Your task to perform on an android device: snooze an email in the gmail app Image 0: 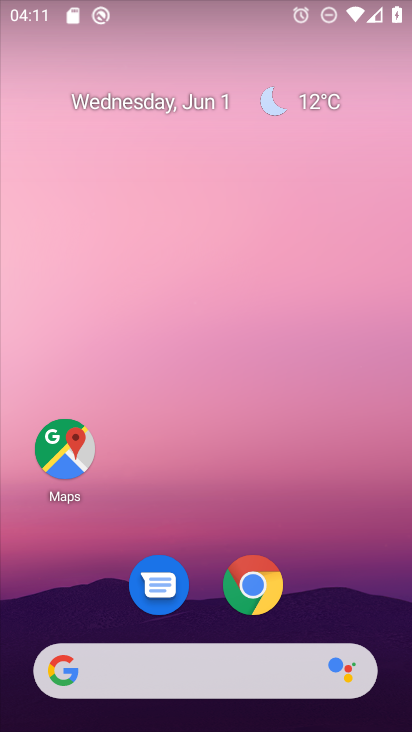
Step 0: click (247, 27)
Your task to perform on an android device: snooze an email in the gmail app Image 1: 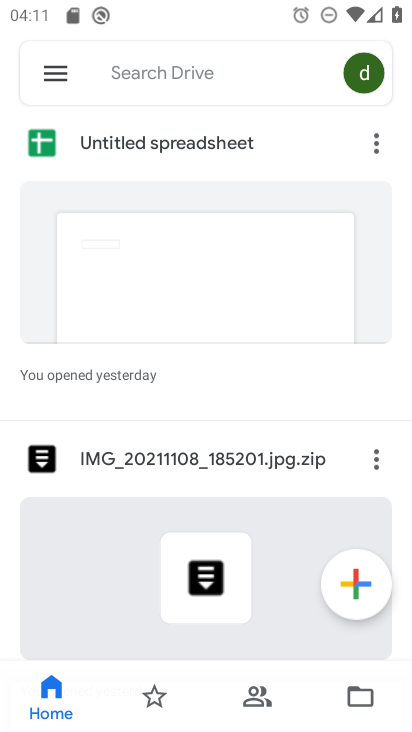
Step 1: press home button
Your task to perform on an android device: snooze an email in the gmail app Image 2: 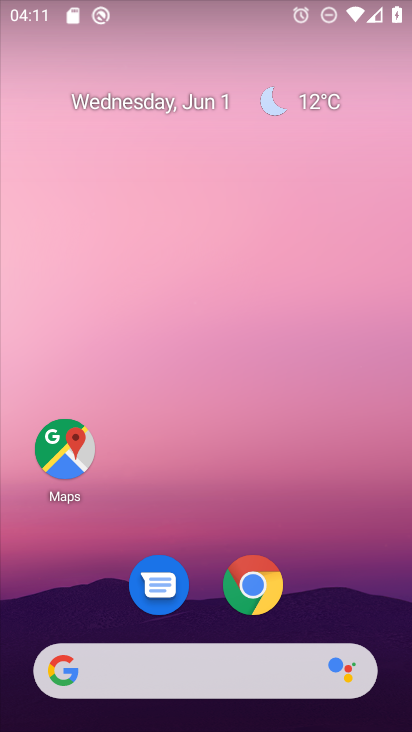
Step 2: drag from (181, 516) to (175, 5)
Your task to perform on an android device: snooze an email in the gmail app Image 3: 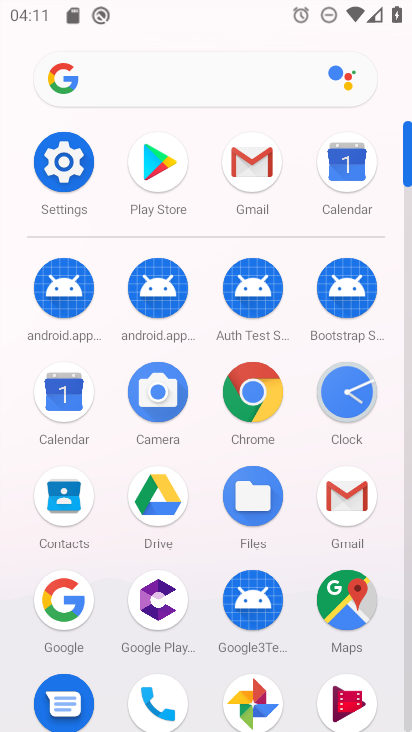
Step 3: click (247, 162)
Your task to perform on an android device: snooze an email in the gmail app Image 4: 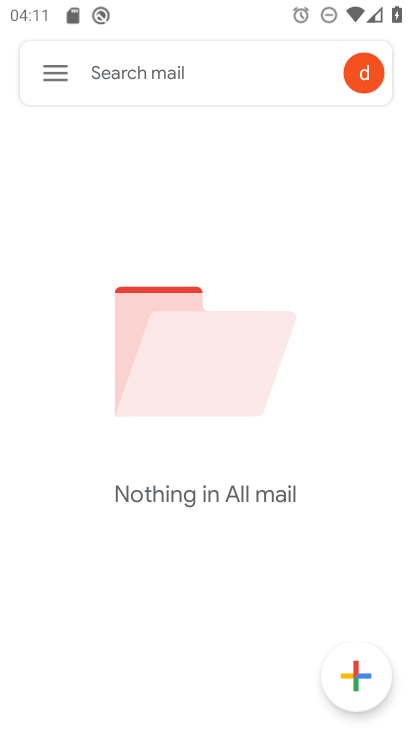
Step 4: task complete